Your task to perform on an android device: Open Reddit.com Image 0: 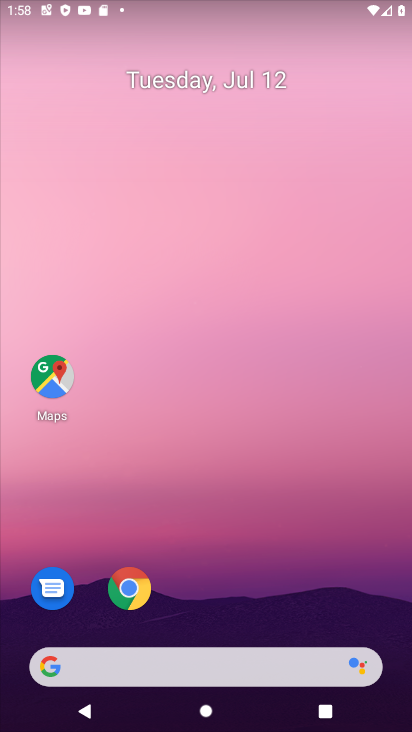
Step 0: drag from (192, 651) to (143, 86)
Your task to perform on an android device: Open Reddit.com Image 1: 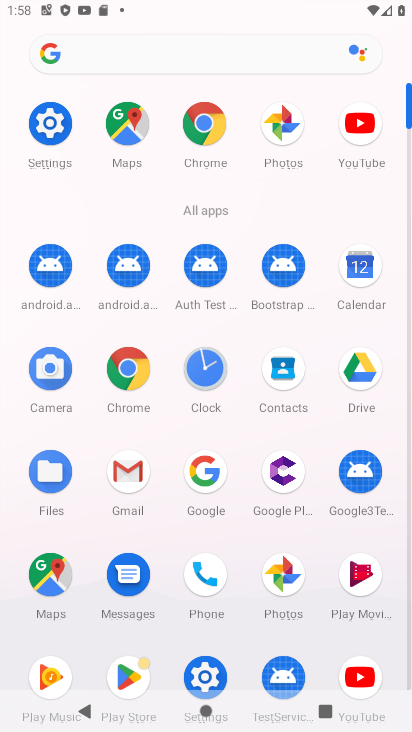
Step 1: click (215, 125)
Your task to perform on an android device: Open Reddit.com Image 2: 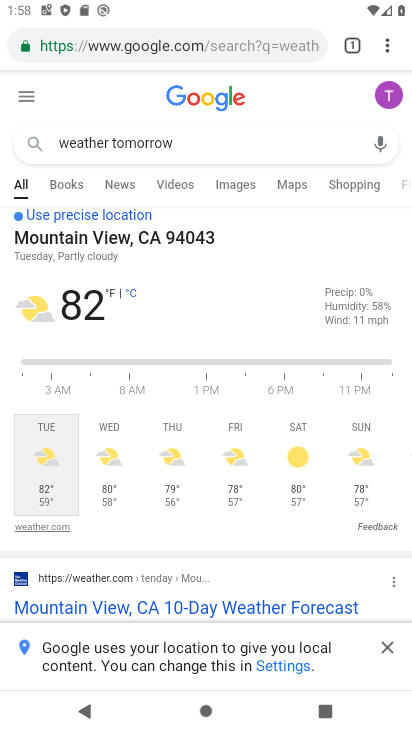
Step 2: click (184, 47)
Your task to perform on an android device: Open Reddit.com Image 3: 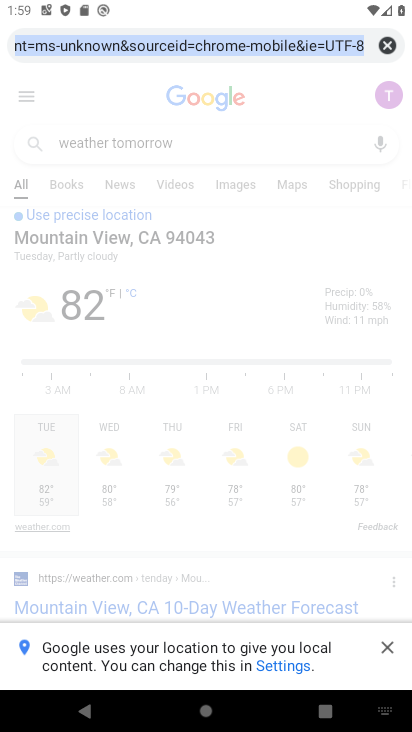
Step 3: type "reddit.com"
Your task to perform on an android device: Open Reddit.com Image 4: 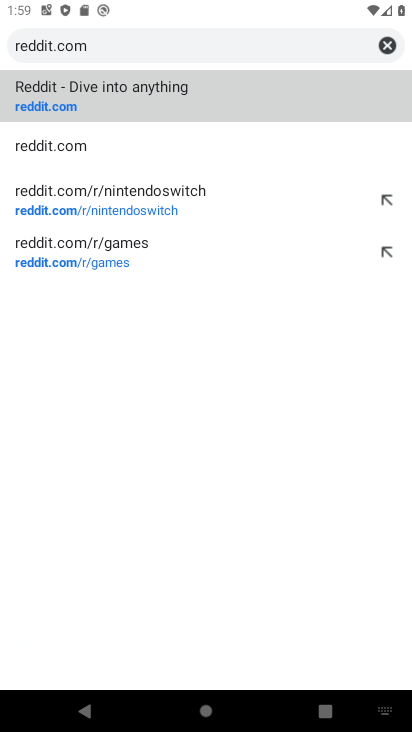
Step 4: click (183, 78)
Your task to perform on an android device: Open Reddit.com Image 5: 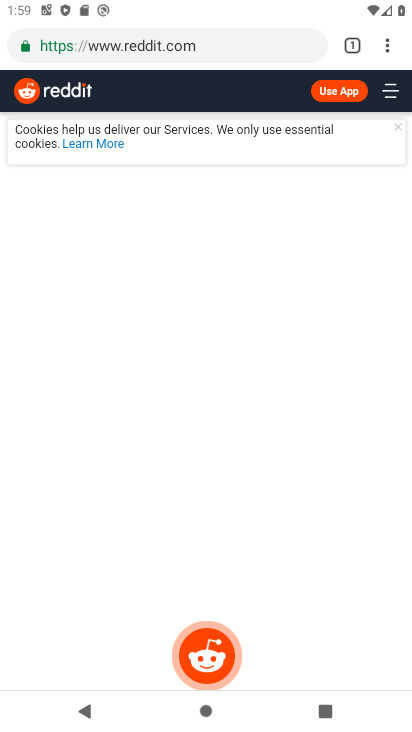
Step 5: task complete